Your task to perform on an android device: turn on notifications settings in the gmail app Image 0: 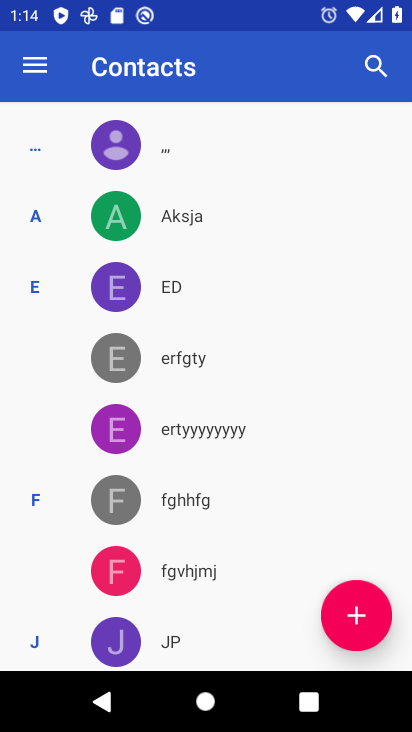
Step 0: press home button
Your task to perform on an android device: turn on notifications settings in the gmail app Image 1: 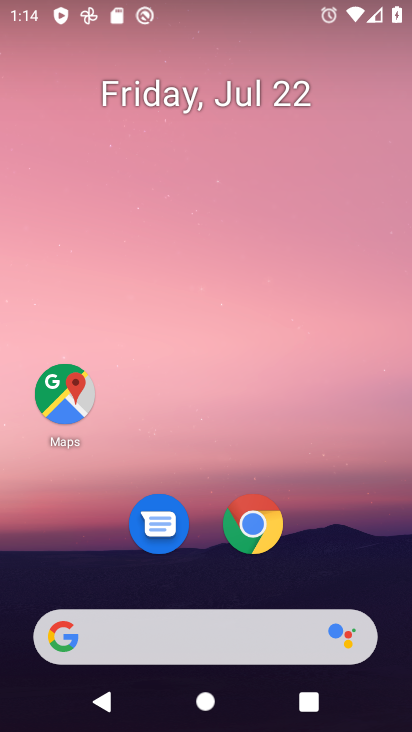
Step 1: drag from (222, 648) to (306, 244)
Your task to perform on an android device: turn on notifications settings in the gmail app Image 2: 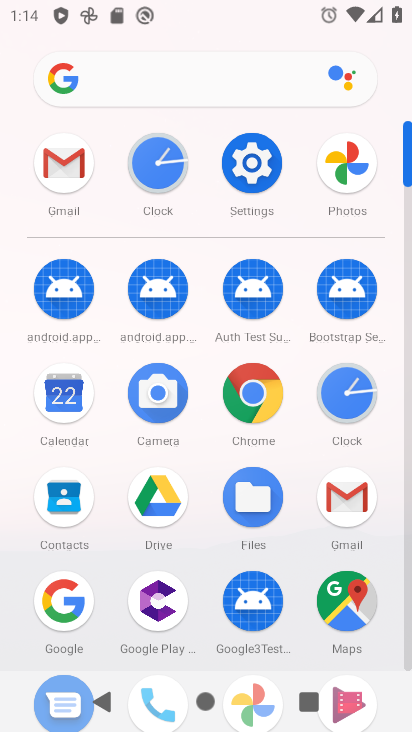
Step 2: click (63, 163)
Your task to perform on an android device: turn on notifications settings in the gmail app Image 3: 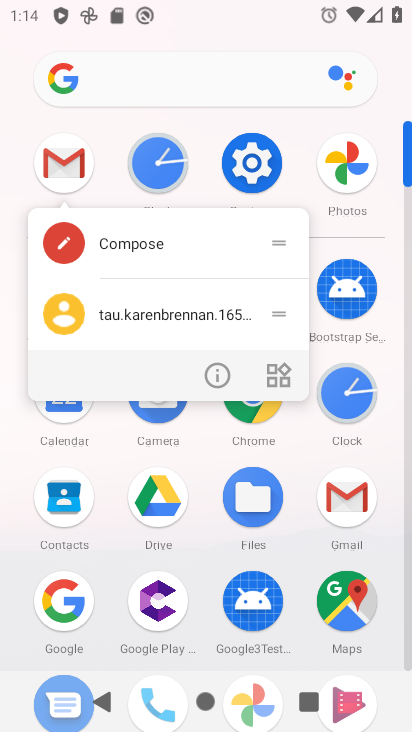
Step 3: click (63, 167)
Your task to perform on an android device: turn on notifications settings in the gmail app Image 4: 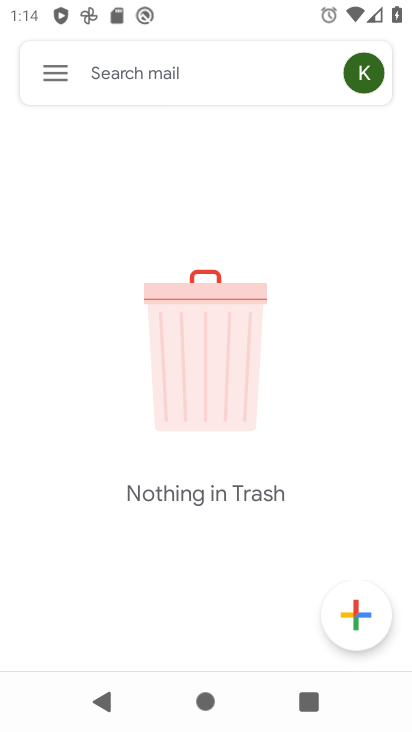
Step 4: click (38, 66)
Your task to perform on an android device: turn on notifications settings in the gmail app Image 5: 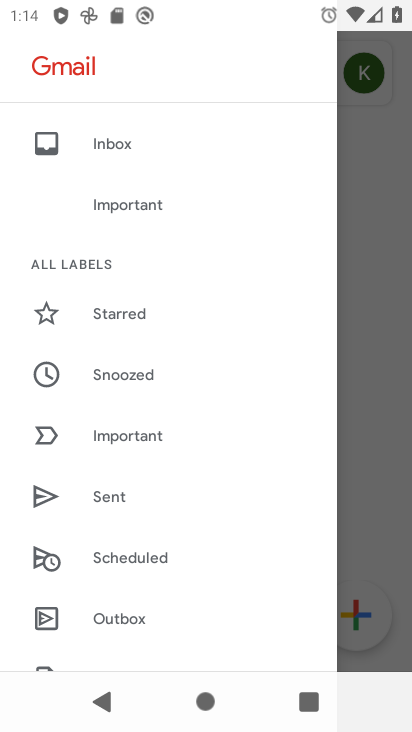
Step 5: drag from (175, 628) to (280, 283)
Your task to perform on an android device: turn on notifications settings in the gmail app Image 6: 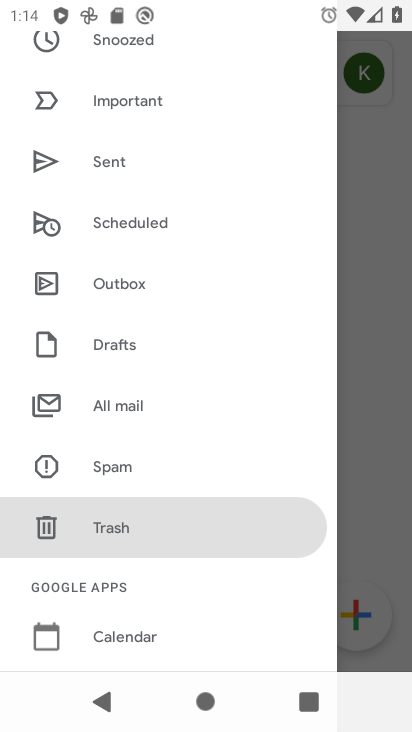
Step 6: drag from (222, 611) to (297, 197)
Your task to perform on an android device: turn on notifications settings in the gmail app Image 7: 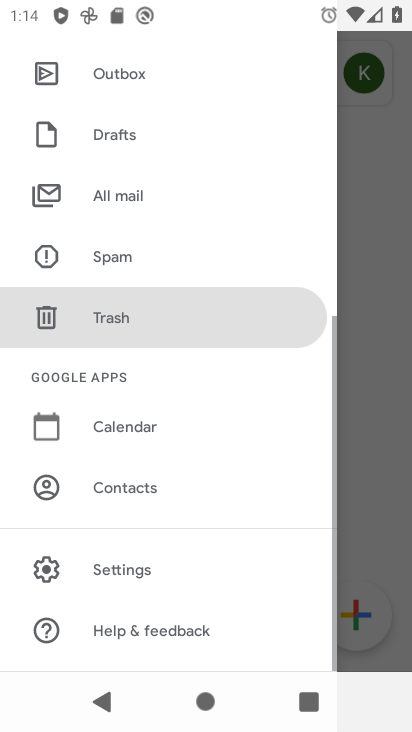
Step 7: click (139, 574)
Your task to perform on an android device: turn on notifications settings in the gmail app Image 8: 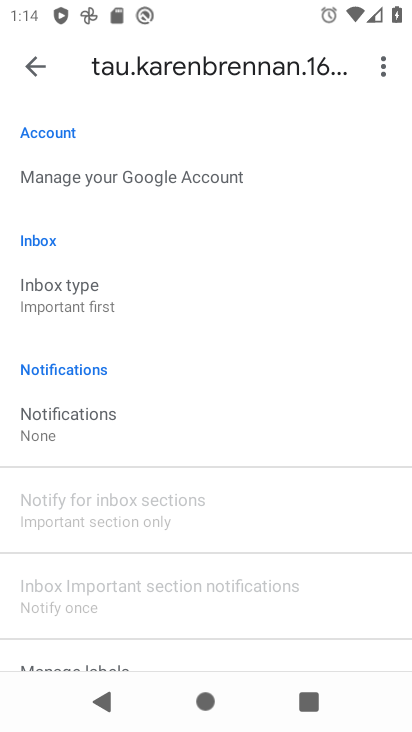
Step 8: click (61, 429)
Your task to perform on an android device: turn on notifications settings in the gmail app Image 9: 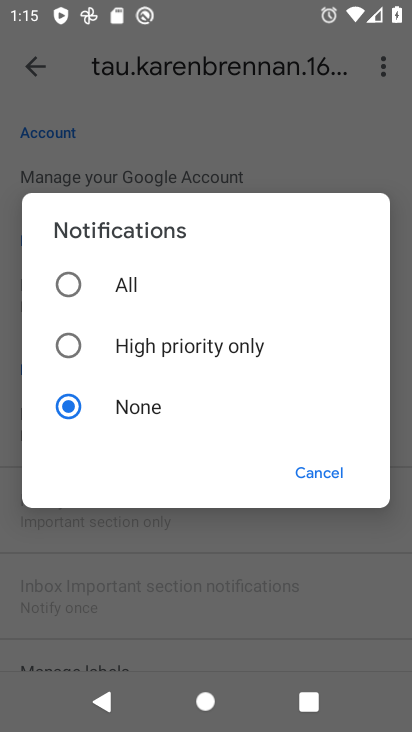
Step 9: click (72, 288)
Your task to perform on an android device: turn on notifications settings in the gmail app Image 10: 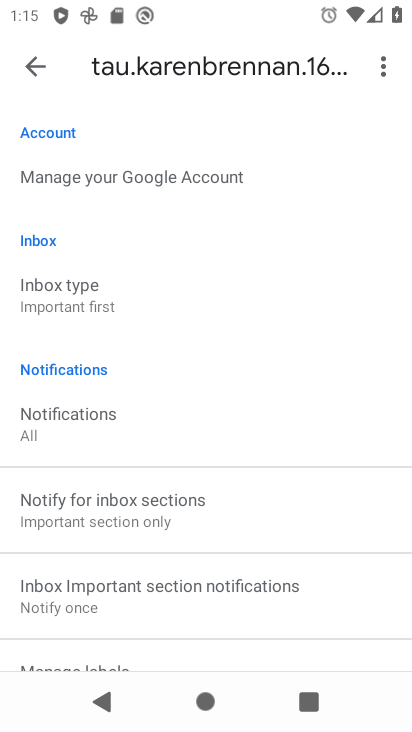
Step 10: task complete